Your task to perform on an android device: read, delete, or share a saved page in the chrome app Image 0: 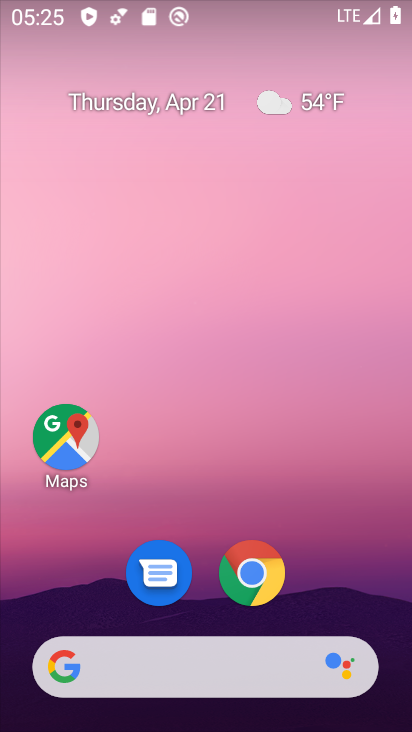
Step 0: click (250, 569)
Your task to perform on an android device: read, delete, or share a saved page in the chrome app Image 1: 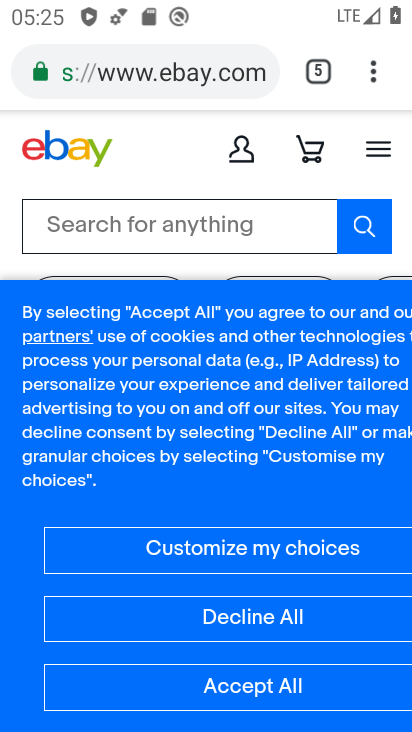
Step 1: click (371, 76)
Your task to perform on an android device: read, delete, or share a saved page in the chrome app Image 2: 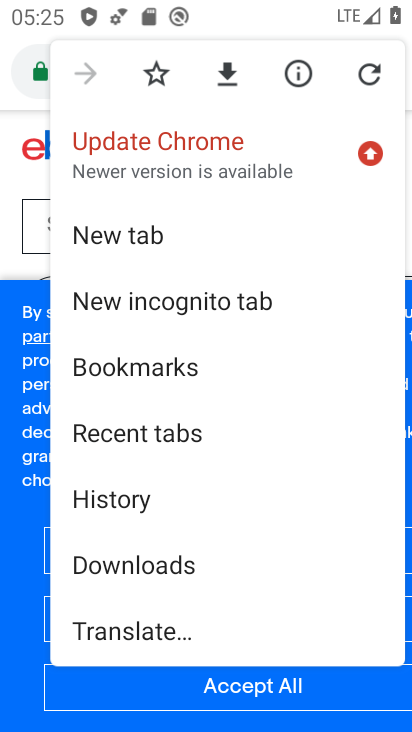
Step 2: drag from (235, 577) to (265, 345)
Your task to perform on an android device: read, delete, or share a saved page in the chrome app Image 3: 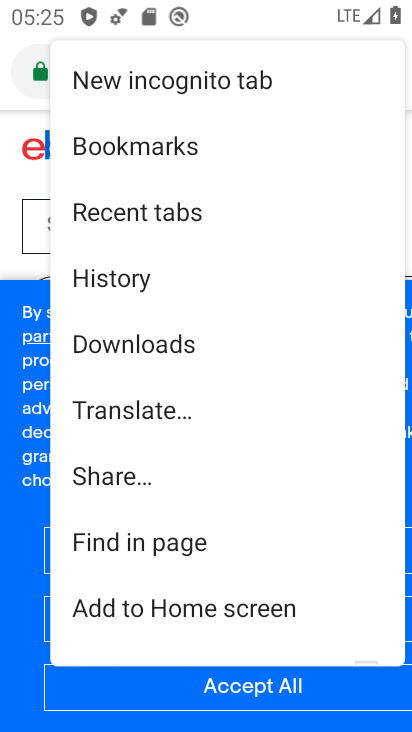
Step 3: click (106, 342)
Your task to perform on an android device: read, delete, or share a saved page in the chrome app Image 4: 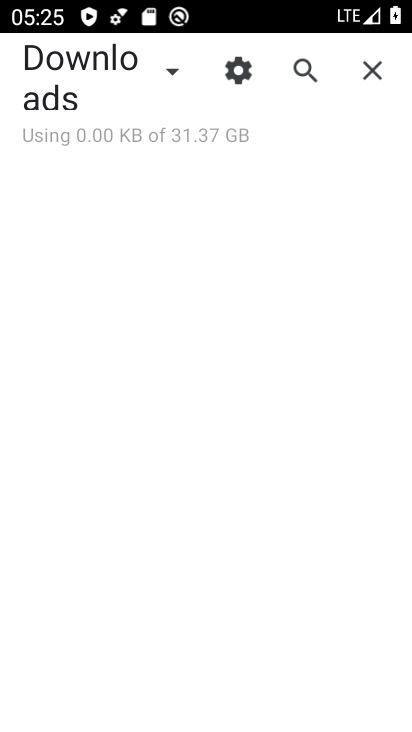
Step 4: click (168, 64)
Your task to perform on an android device: read, delete, or share a saved page in the chrome app Image 5: 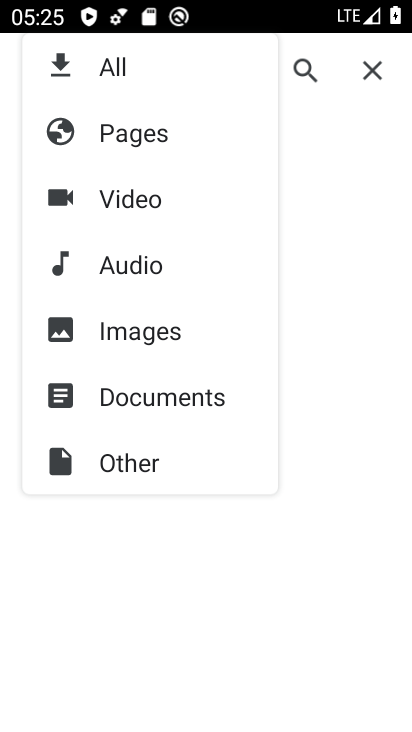
Step 5: click (123, 132)
Your task to perform on an android device: read, delete, or share a saved page in the chrome app Image 6: 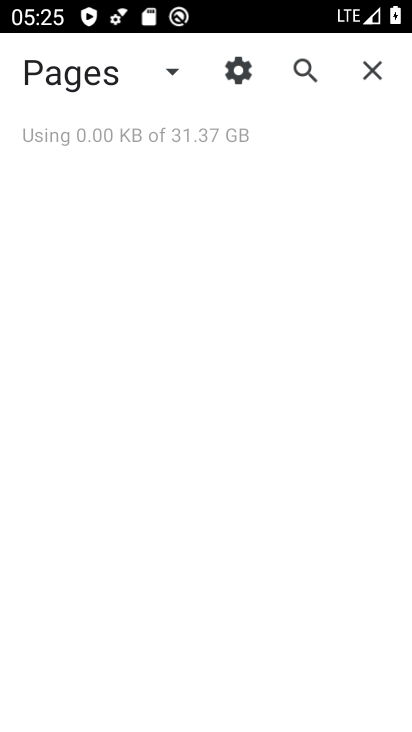
Step 6: task complete